Your task to perform on an android device: delete location history Image 0: 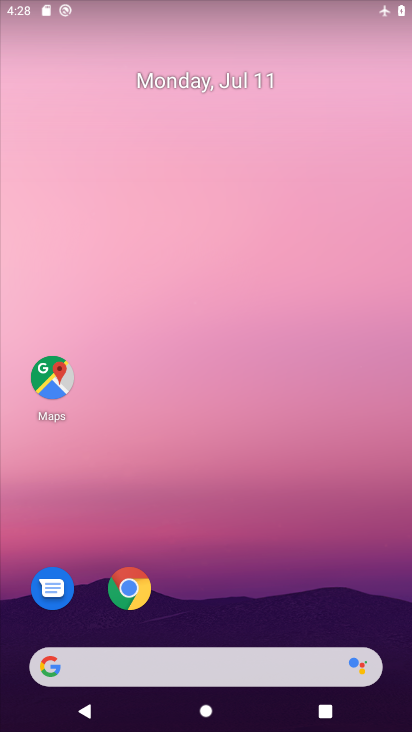
Step 0: drag from (317, 635) to (365, 169)
Your task to perform on an android device: delete location history Image 1: 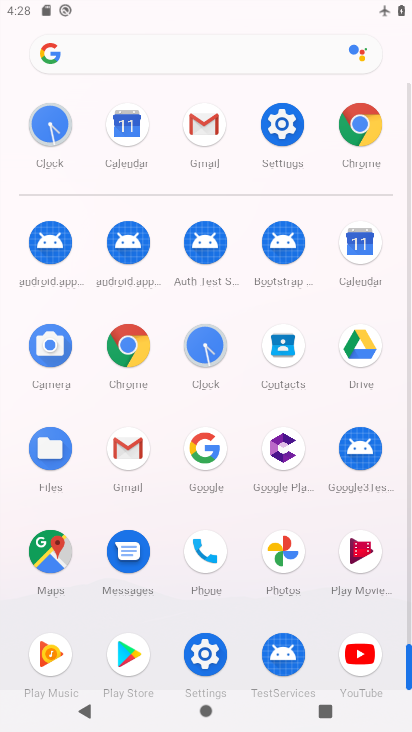
Step 1: click (54, 547)
Your task to perform on an android device: delete location history Image 2: 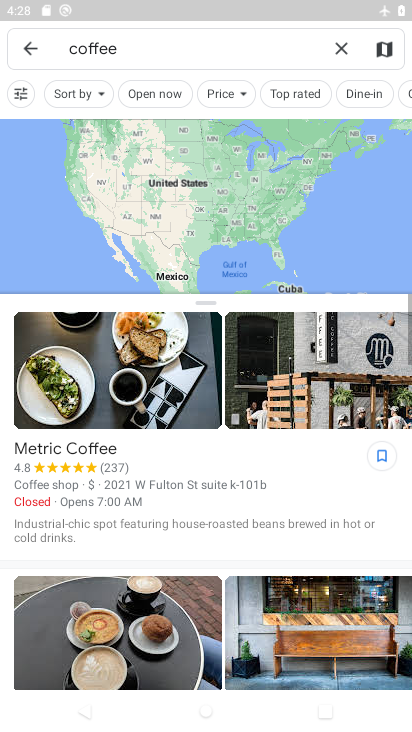
Step 2: press back button
Your task to perform on an android device: delete location history Image 3: 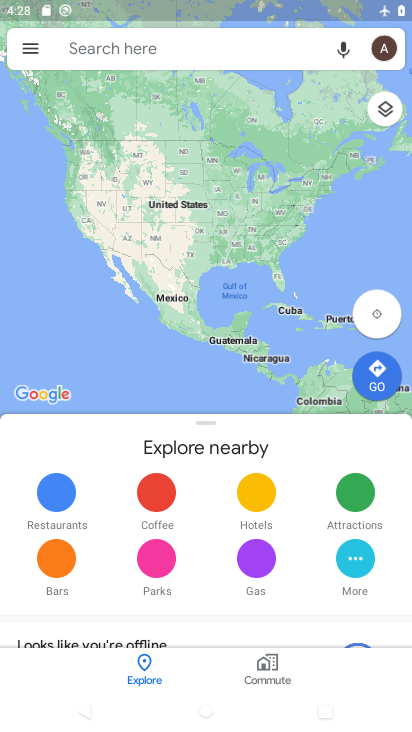
Step 3: click (32, 49)
Your task to perform on an android device: delete location history Image 4: 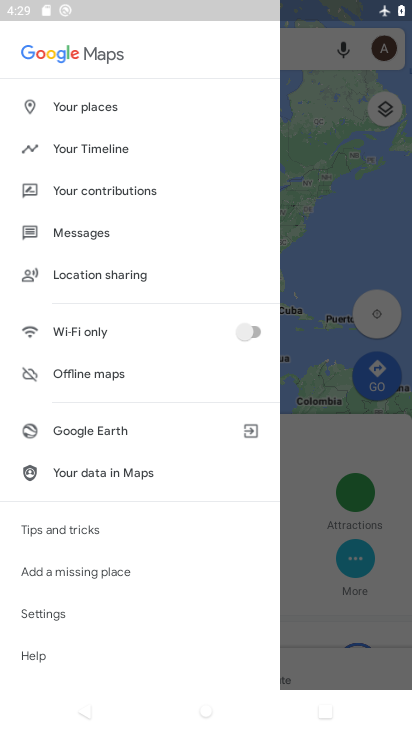
Step 4: click (121, 142)
Your task to perform on an android device: delete location history Image 5: 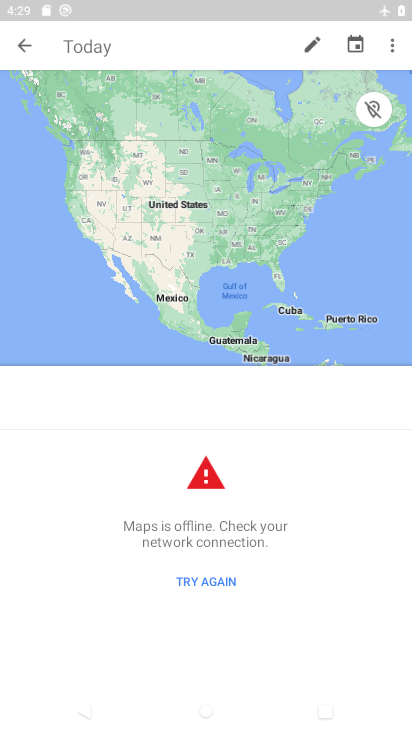
Step 5: task complete